Your task to perform on an android device: Go to notification settings Image 0: 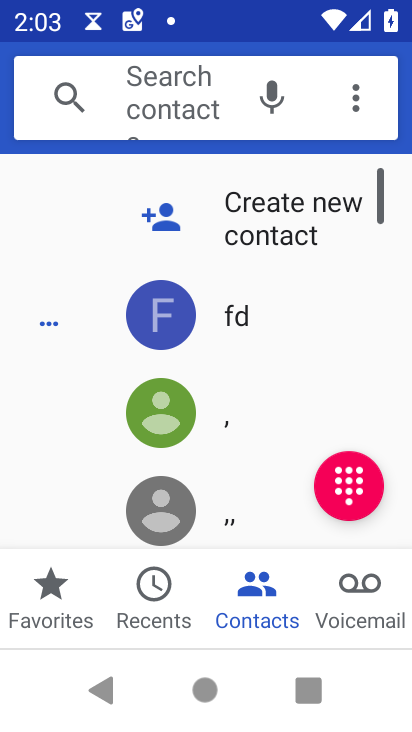
Step 0: press home button
Your task to perform on an android device: Go to notification settings Image 1: 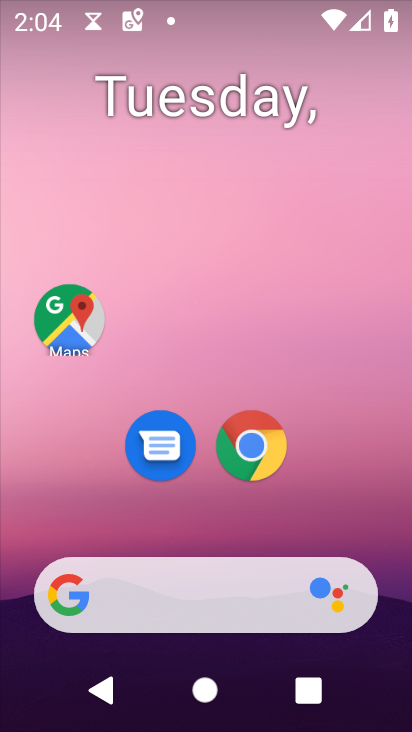
Step 1: drag from (372, 468) to (242, 0)
Your task to perform on an android device: Go to notification settings Image 2: 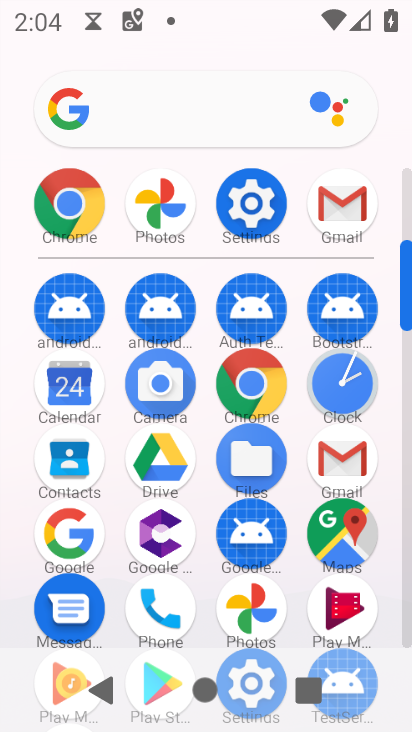
Step 2: click (271, 202)
Your task to perform on an android device: Go to notification settings Image 3: 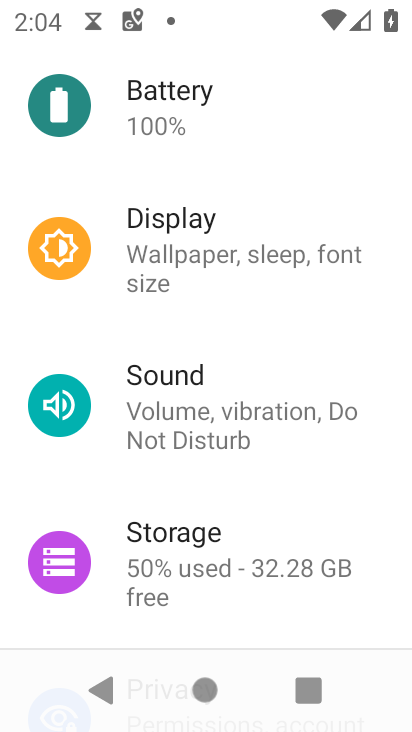
Step 3: drag from (301, 272) to (329, 563)
Your task to perform on an android device: Go to notification settings Image 4: 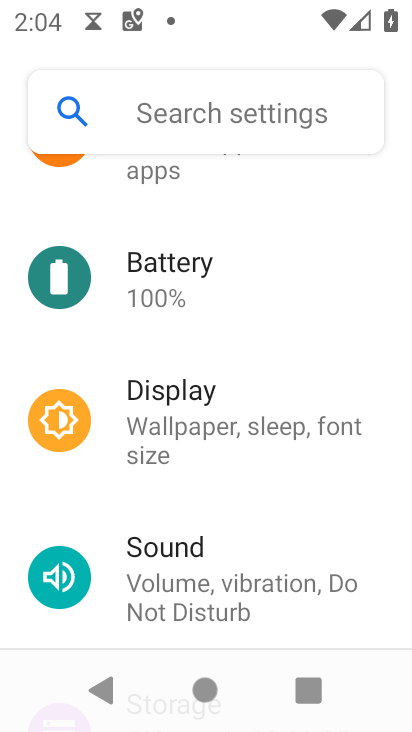
Step 4: drag from (213, 335) to (253, 570)
Your task to perform on an android device: Go to notification settings Image 5: 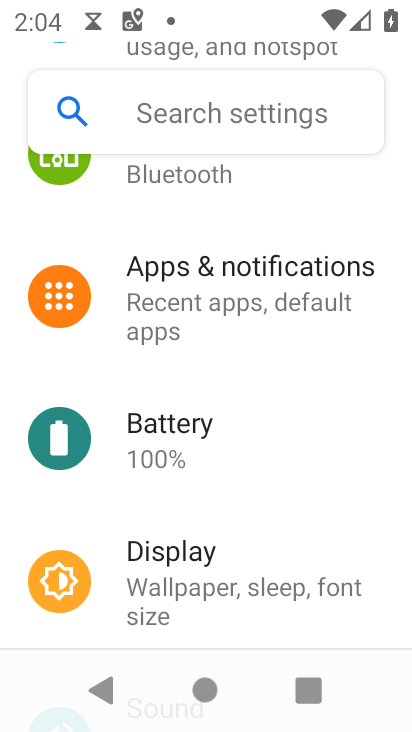
Step 5: click (219, 293)
Your task to perform on an android device: Go to notification settings Image 6: 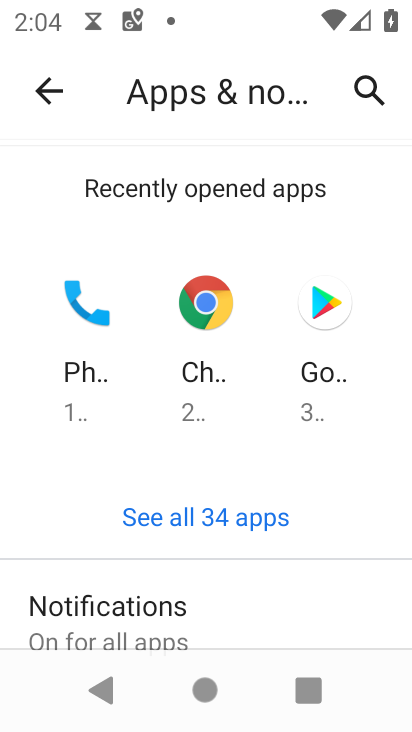
Step 6: drag from (166, 526) to (133, 181)
Your task to perform on an android device: Go to notification settings Image 7: 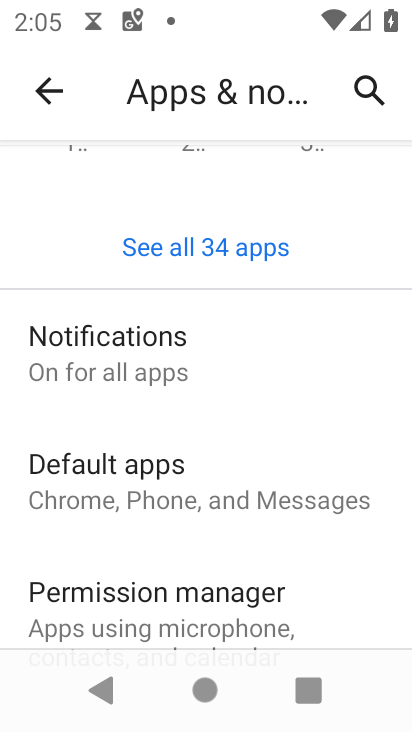
Step 7: click (83, 356)
Your task to perform on an android device: Go to notification settings Image 8: 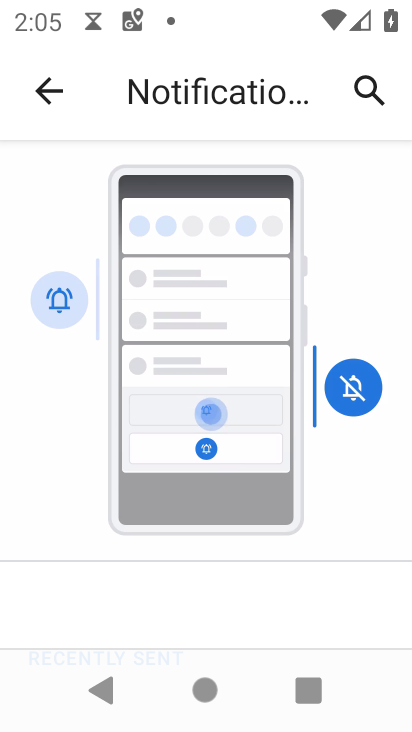
Step 8: task complete